Your task to perform on an android device: Go to Yahoo.com Image 0: 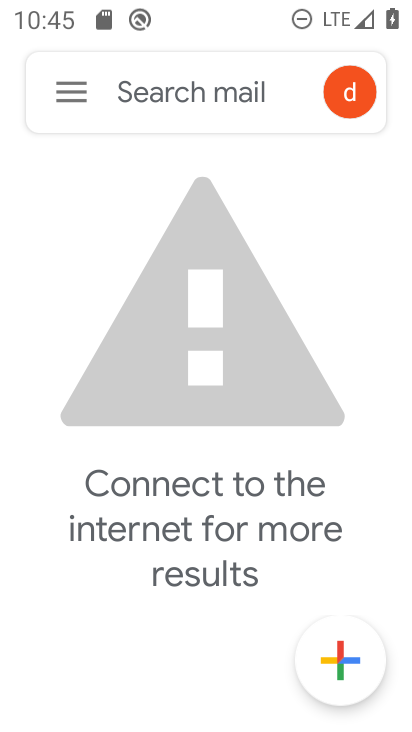
Step 0: press home button
Your task to perform on an android device: Go to Yahoo.com Image 1: 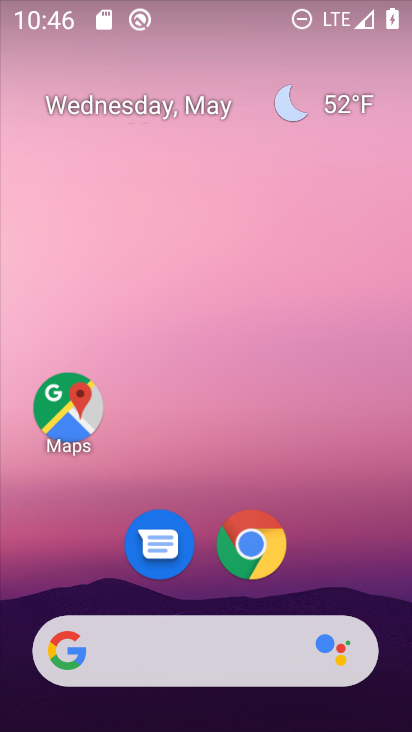
Step 1: click (242, 548)
Your task to perform on an android device: Go to Yahoo.com Image 2: 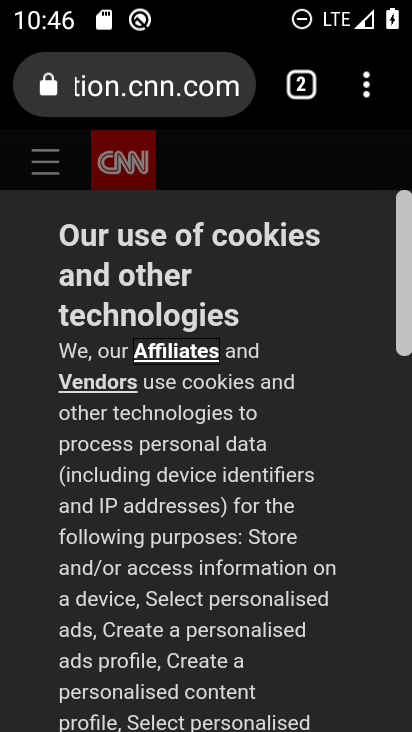
Step 2: click (292, 82)
Your task to perform on an android device: Go to Yahoo.com Image 3: 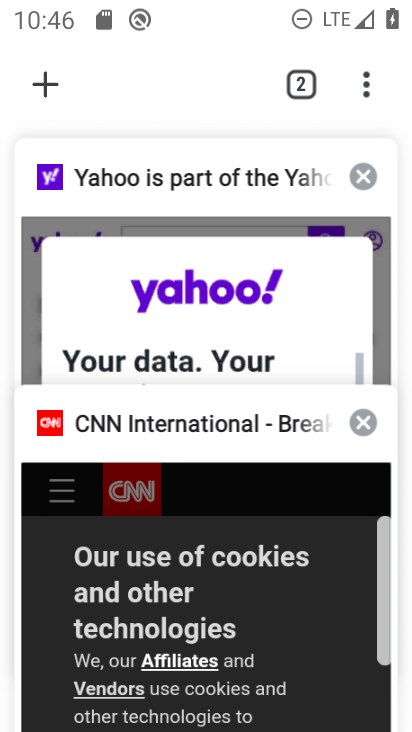
Step 3: click (186, 225)
Your task to perform on an android device: Go to Yahoo.com Image 4: 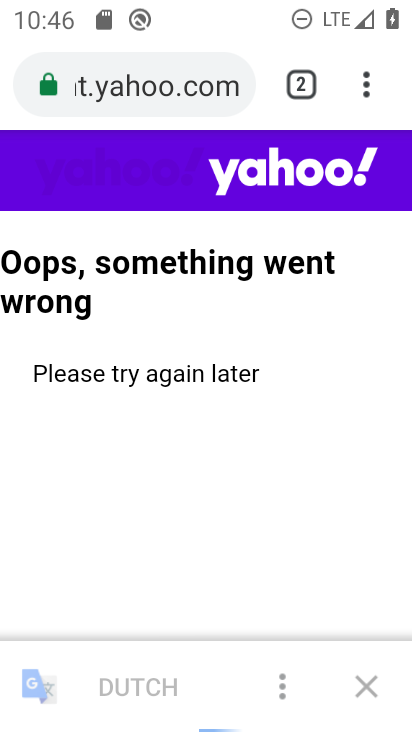
Step 4: task complete